Your task to perform on an android device: Open Yahoo.com Image 0: 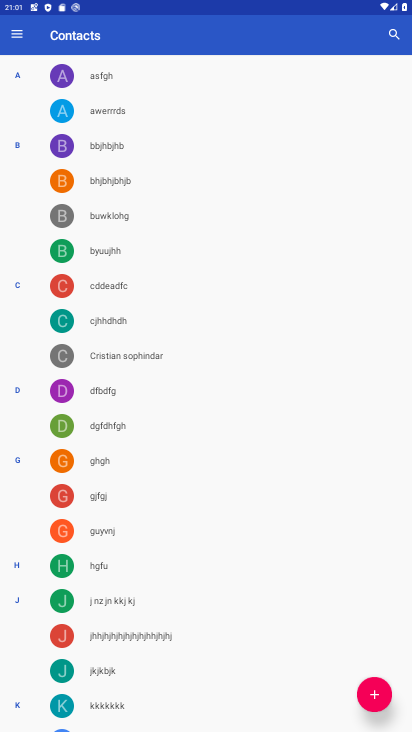
Step 0: press home button
Your task to perform on an android device: Open Yahoo.com Image 1: 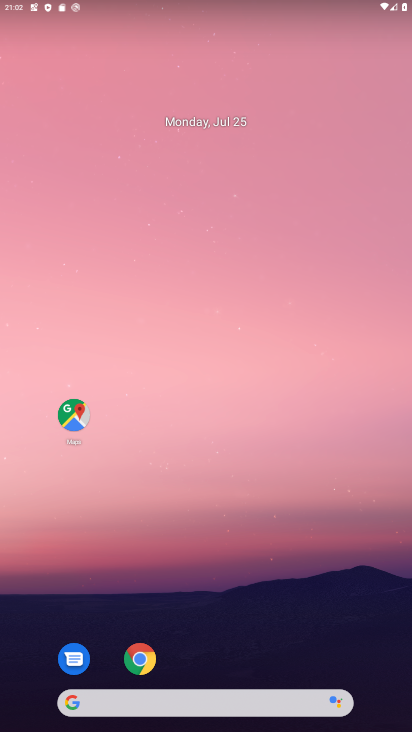
Step 1: click (144, 659)
Your task to perform on an android device: Open Yahoo.com Image 2: 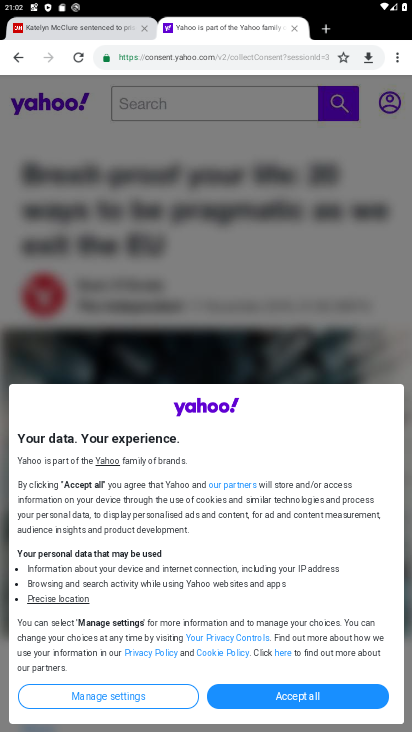
Step 2: task complete